Your task to perform on an android device: Go to sound settings Image 0: 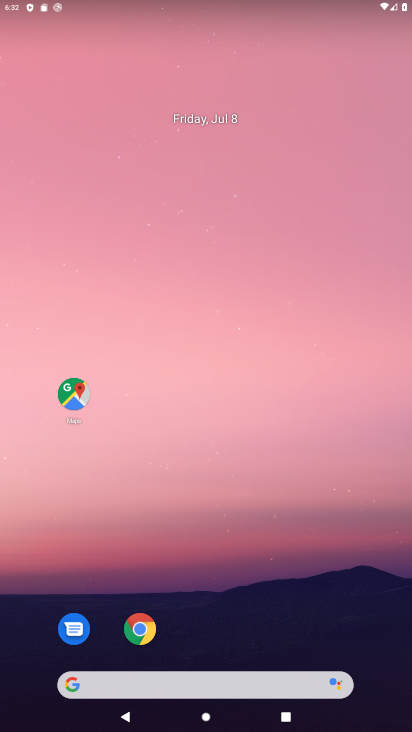
Step 0: drag from (307, 657) to (241, 206)
Your task to perform on an android device: Go to sound settings Image 1: 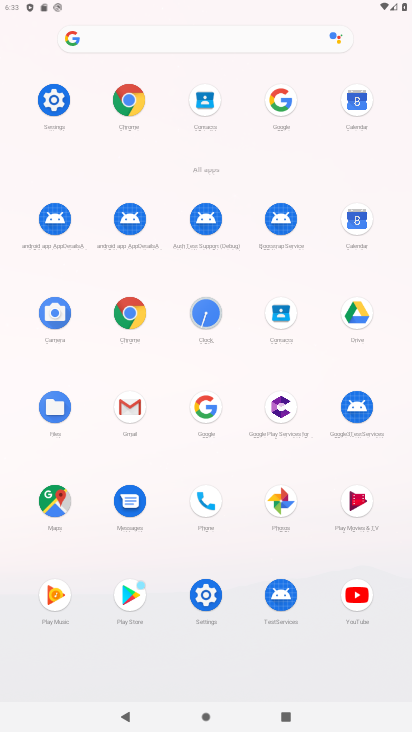
Step 1: click (59, 106)
Your task to perform on an android device: Go to sound settings Image 2: 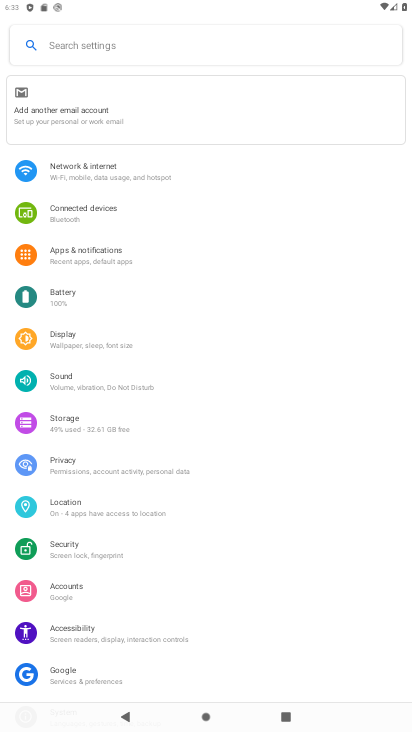
Step 2: click (64, 398)
Your task to perform on an android device: Go to sound settings Image 3: 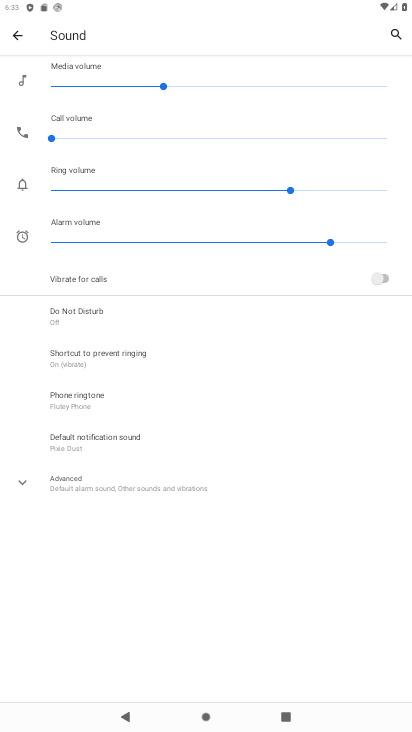
Step 3: task complete